Your task to perform on an android device: Open battery settings Image 0: 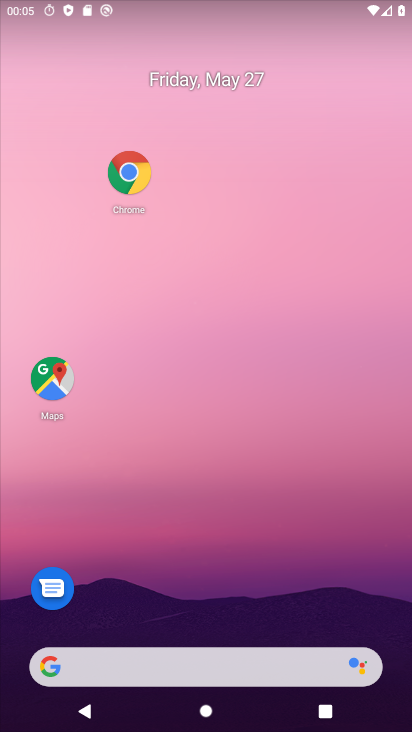
Step 0: drag from (230, 629) to (237, 250)
Your task to perform on an android device: Open battery settings Image 1: 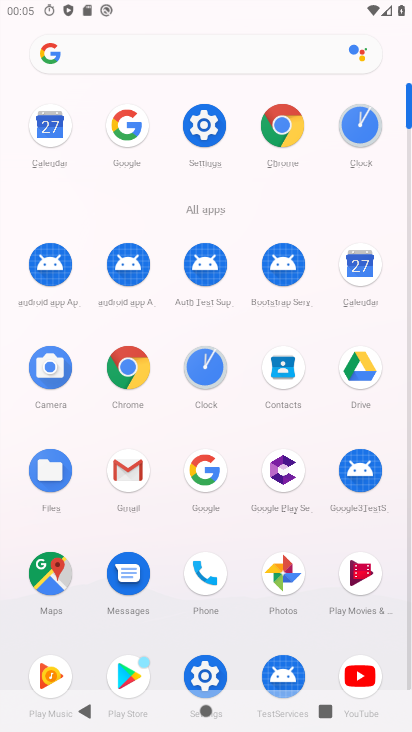
Step 1: click (205, 681)
Your task to perform on an android device: Open battery settings Image 2: 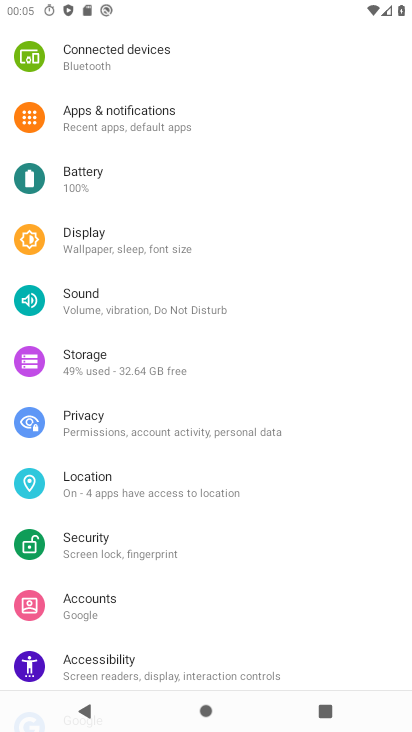
Step 2: click (98, 178)
Your task to perform on an android device: Open battery settings Image 3: 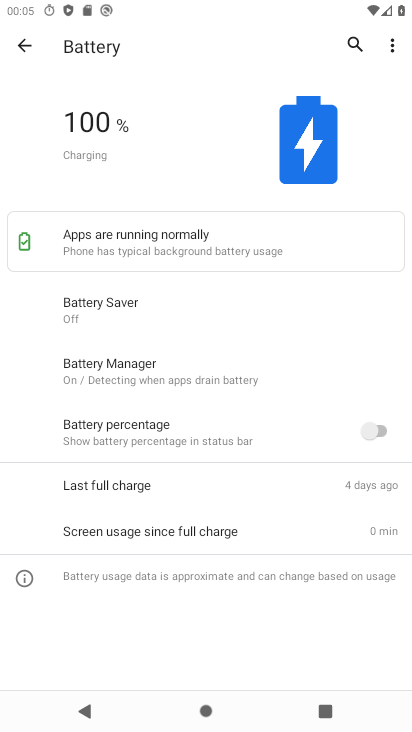
Step 3: task complete